Your task to perform on an android device: show emergency info Image 0: 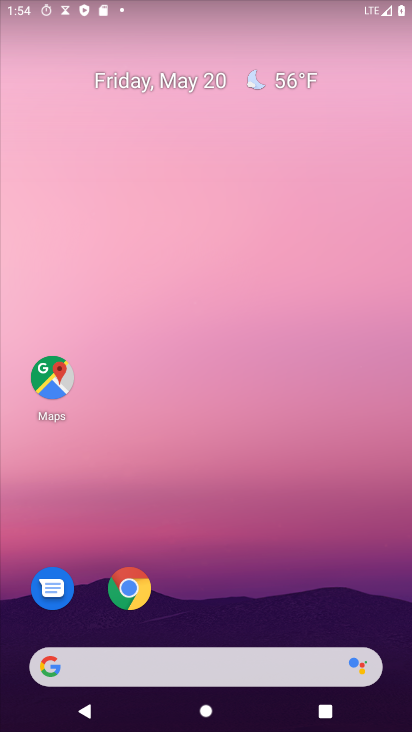
Step 0: drag from (33, 584) to (303, 138)
Your task to perform on an android device: show emergency info Image 1: 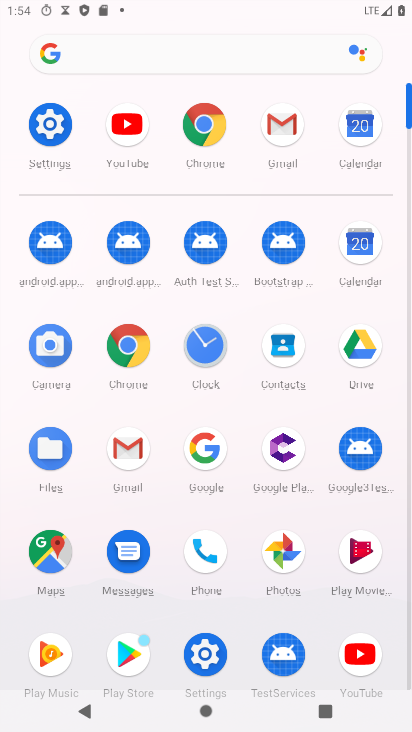
Step 1: click (48, 123)
Your task to perform on an android device: show emergency info Image 2: 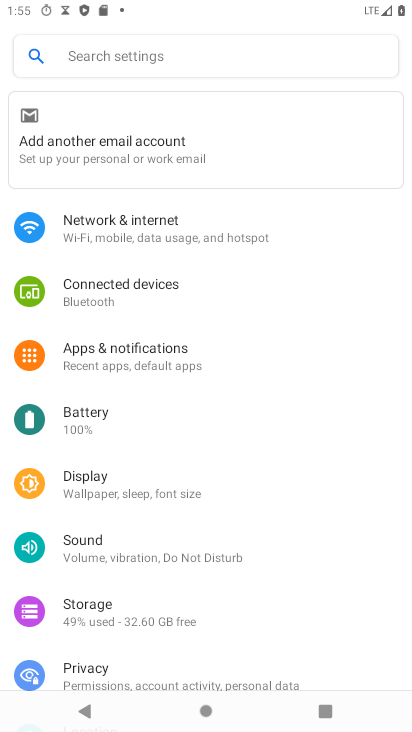
Step 2: drag from (104, 607) to (192, 273)
Your task to perform on an android device: show emergency info Image 3: 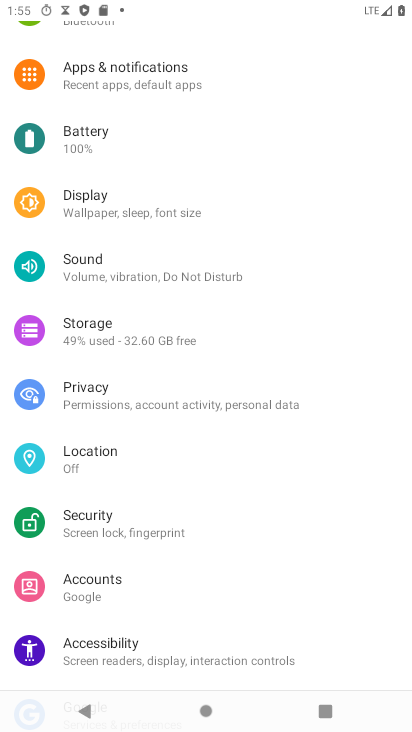
Step 3: drag from (47, 663) to (214, 219)
Your task to perform on an android device: show emergency info Image 4: 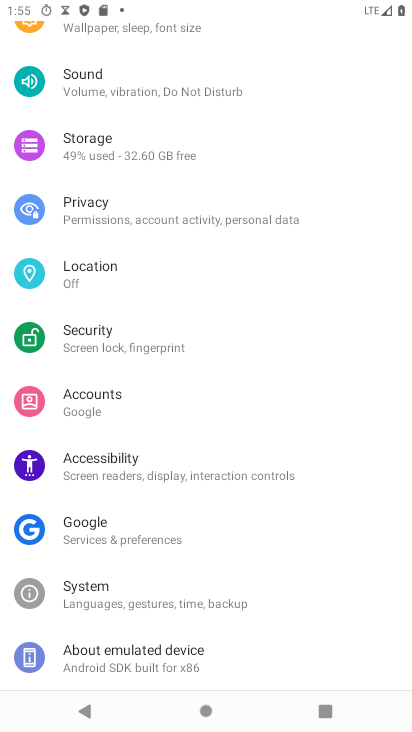
Step 4: click (119, 653)
Your task to perform on an android device: show emergency info Image 5: 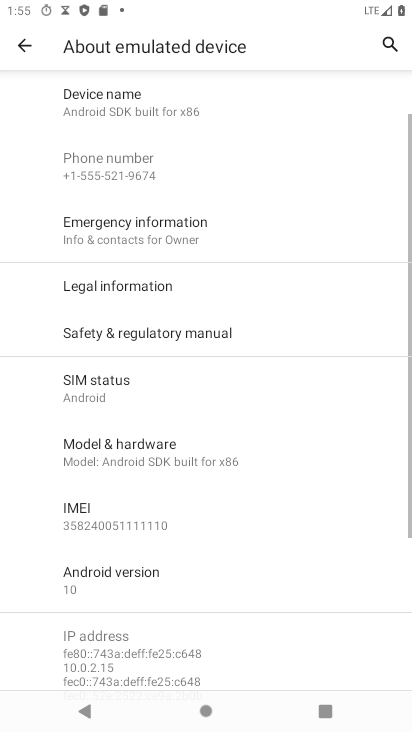
Step 5: click (116, 225)
Your task to perform on an android device: show emergency info Image 6: 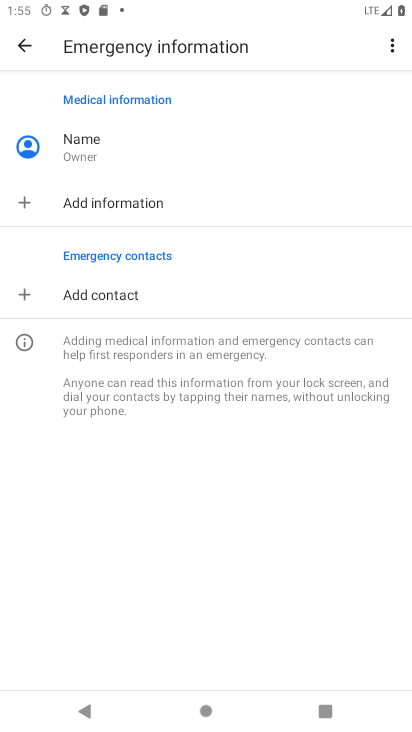
Step 6: task complete